Your task to perform on an android device: turn vacation reply on in the gmail app Image 0: 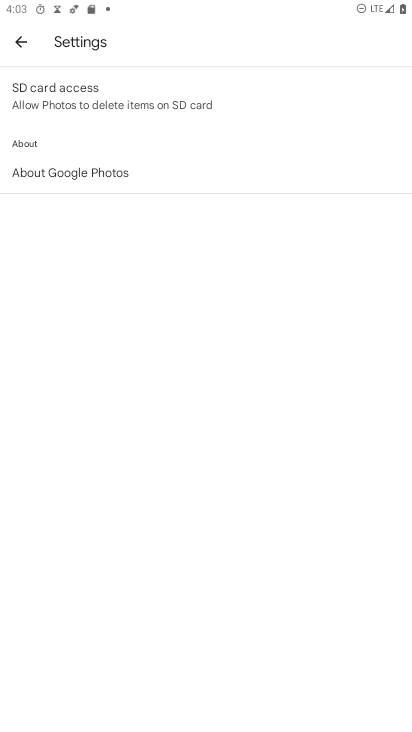
Step 0: press home button
Your task to perform on an android device: turn vacation reply on in the gmail app Image 1: 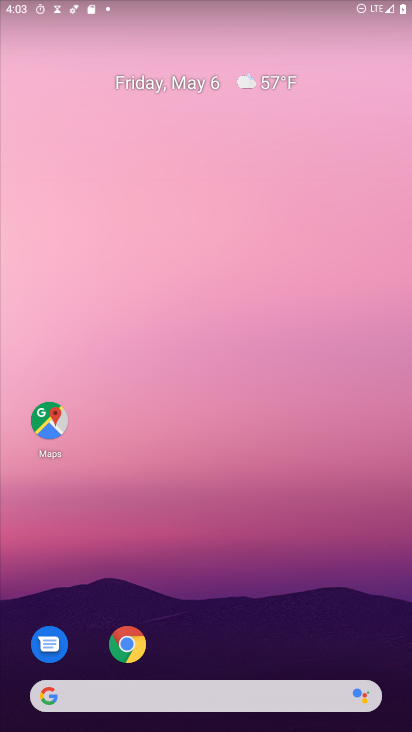
Step 1: drag from (200, 715) to (200, 128)
Your task to perform on an android device: turn vacation reply on in the gmail app Image 2: 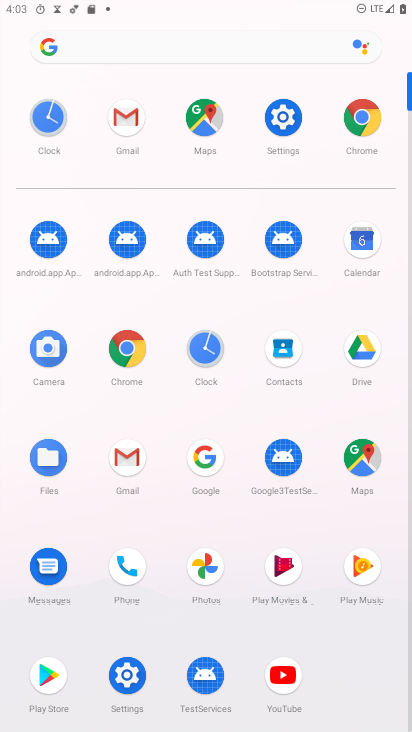
Step 2: click (130, 458)
Your task to perform on an android device: turn vacation reply on in the gmail app Image 3: 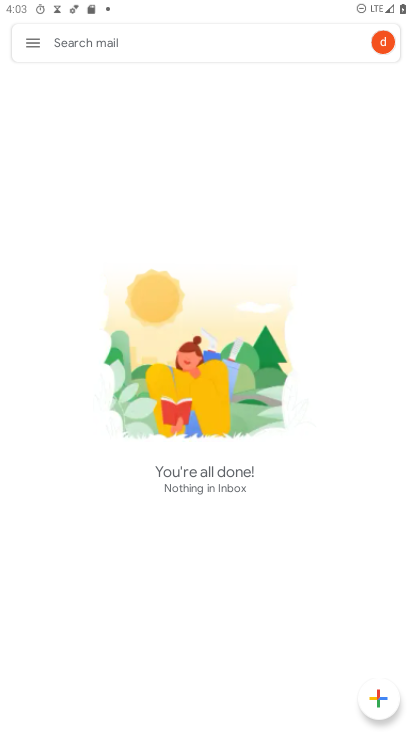
Step 3: click (34, 45)
Your task to perform on an android device: turn vacation reply on in the gmail app Image 4: 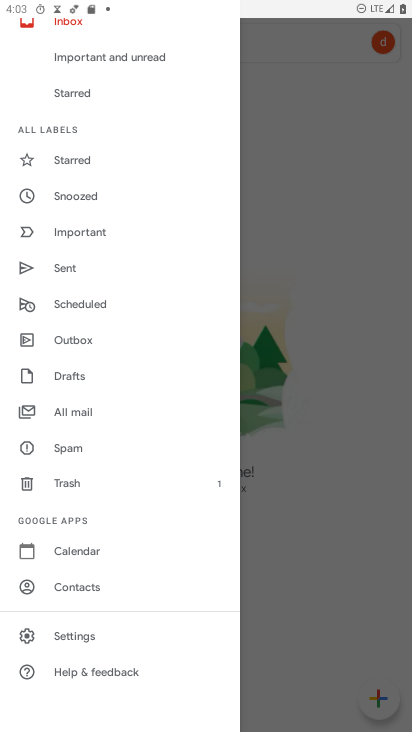
Step 4: click (81, 635)
Your task to perform on an android device: turn vacation reply on in the gmail app Image 5: 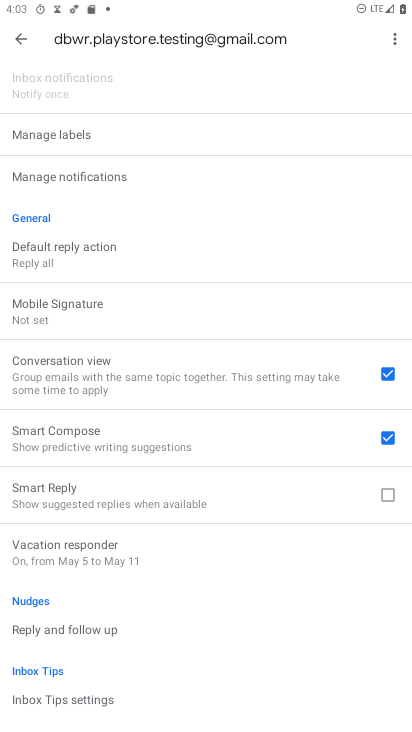
Step 5: drag from (169, 647) to (172, 496)
Your task to perform on an android device: turn vacation reply on in the gmail app Image 6: 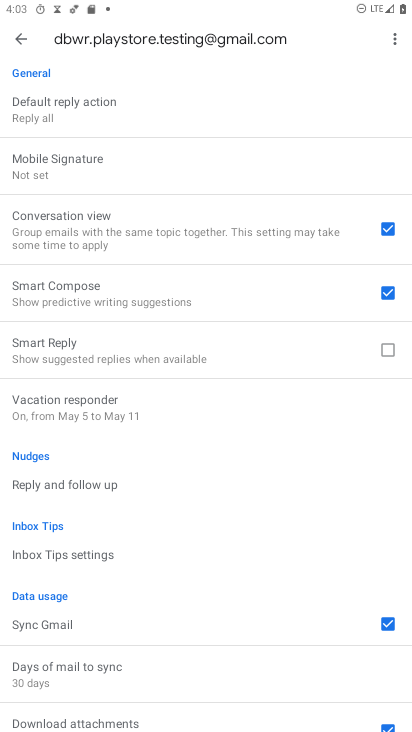
Step 6: drag from (174, 693) to (187, 434)
Your task to perform on an android device: turn vacation reply on in the gmail app Image 7: 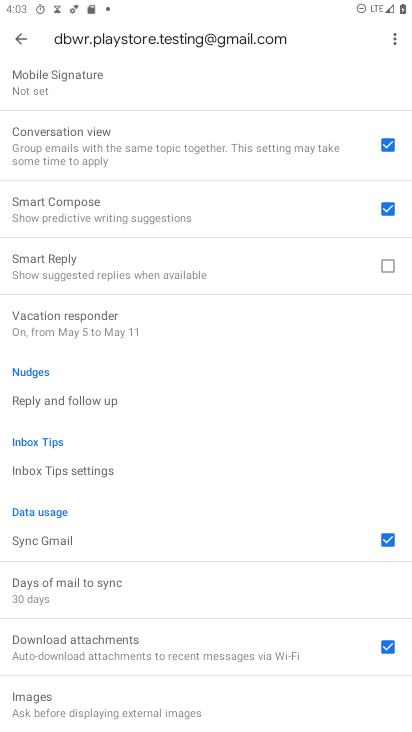
Step 7: click (85, 321)
Your task to perform on an android device: turn vacation reply on in the gmail app Image 8: 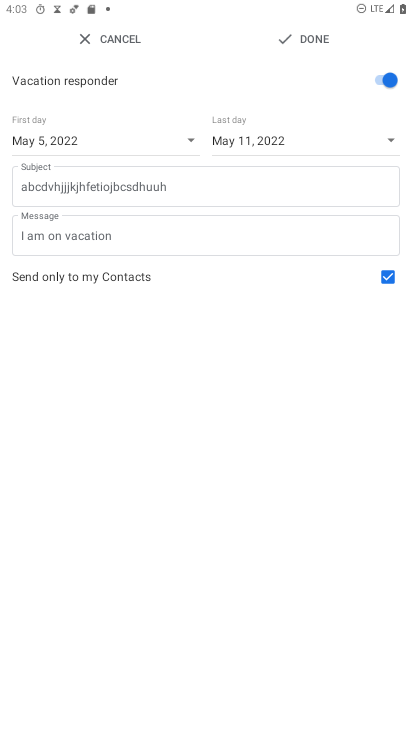
Step 8: task complete